Your task to perform on an android device: turn pop-ups off in chrome Image 0: 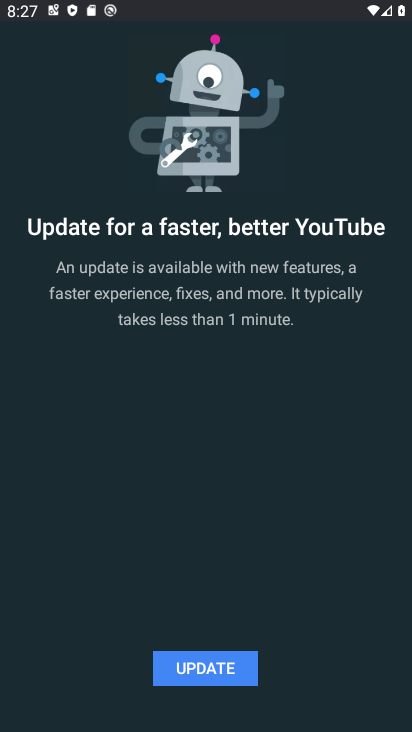
Step 0: press home button
Your task to perform on an android device: turn pop-ups off in chrome Image 1: 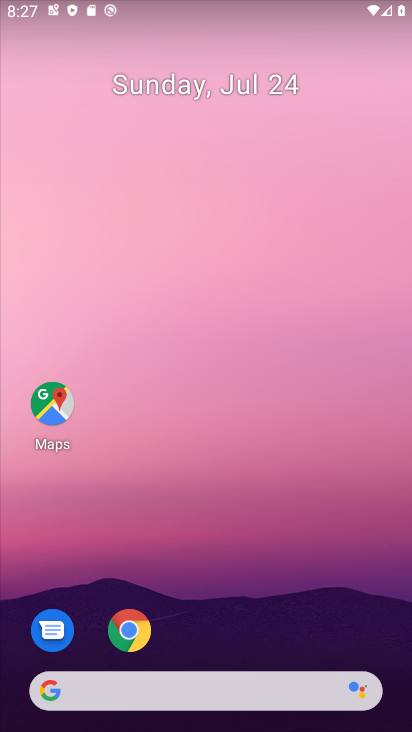
Step 1: click (121, 645)
Your task to perform on an android device: turn pop-ups off in chrome Image 2: 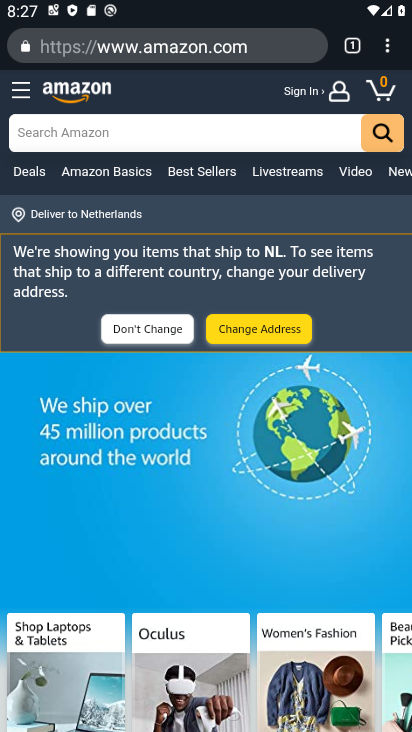
Step 2: click (384, 52)
Your task to perform on an android device: turn pop-ups off in chrome Image 3: 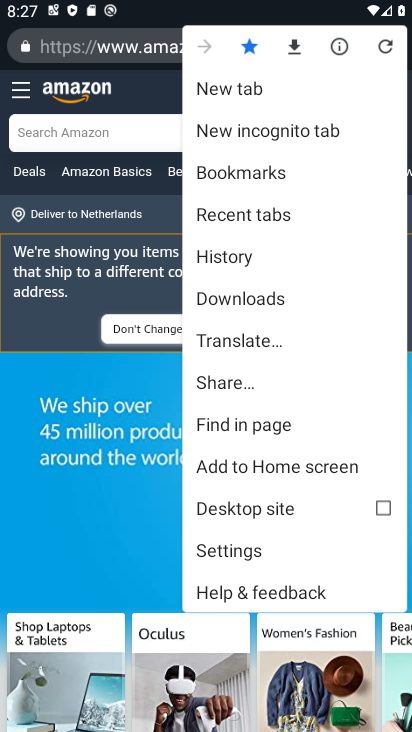
Step 3: click (294, 551)
Your task to perform on an android device: turn pop-ups off in chrome Image 4: 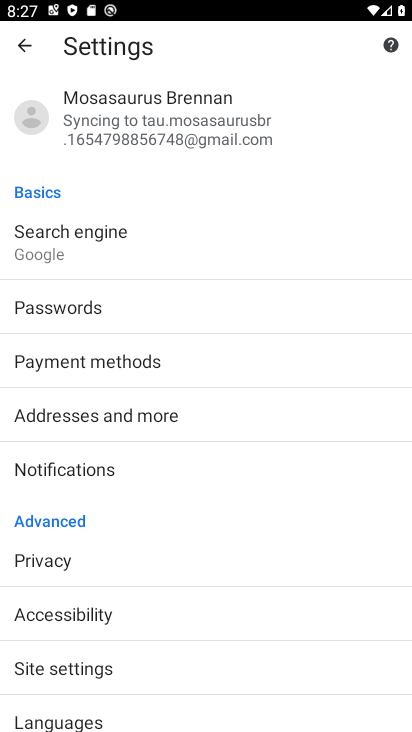
Step 4: drag from (220, 618) to (264, 236)
Your task to perform on an android device: turn pop-ups off in chrome Image 5: 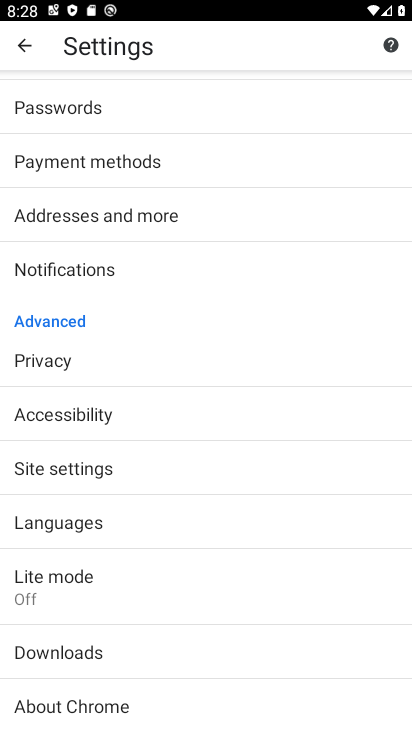
Step 5: click (127, 456)
Your task to perform on an android device: turn pop-ups off in chrome Image 6: 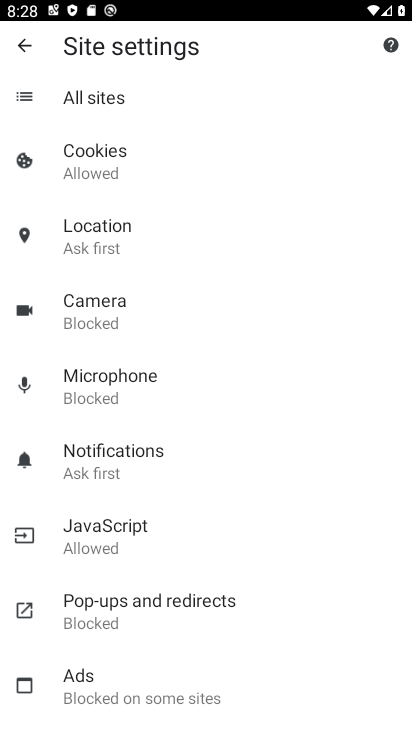
Step 6: click (161, 619)
Your task to perform on an android device: turn pop-ups off in chrome Image 7: 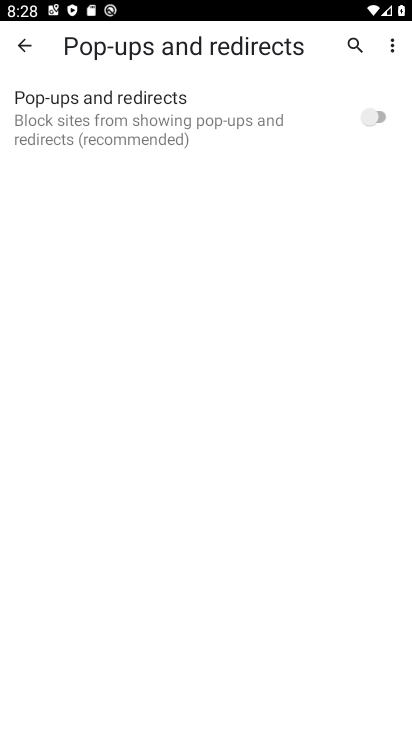
Step 7: task complete